Your task to perform on an android device: Go to location settings Image 0: 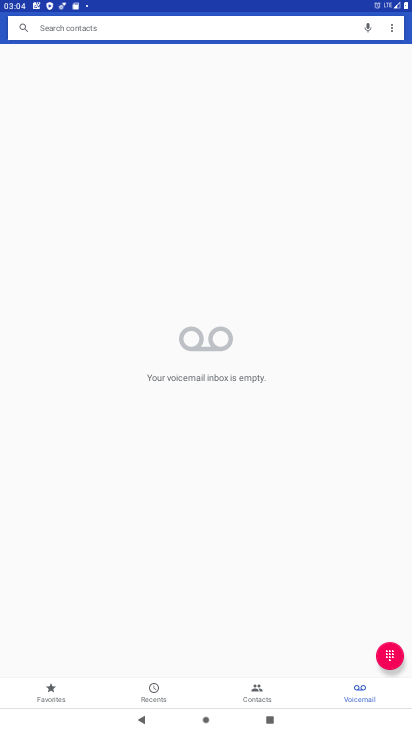
Step 0: press home button
Your task to perform on an android device: Go to location settings Image 1: 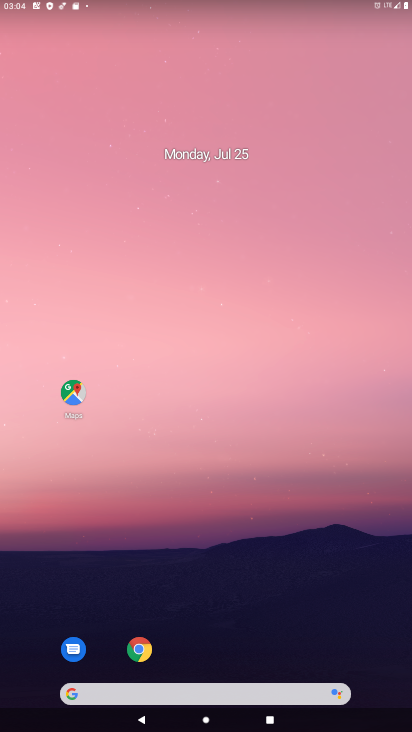
Step 1: drag from (358, 654) to (270, 178)
Your task to perform on an android device: Go to location settings Image 2: 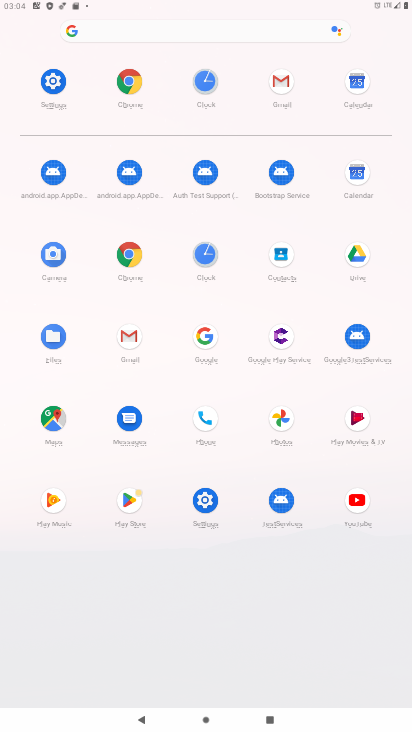
Step 2: click (205, 502)
Your task to perform on an android device: Go to location settings Image 3: 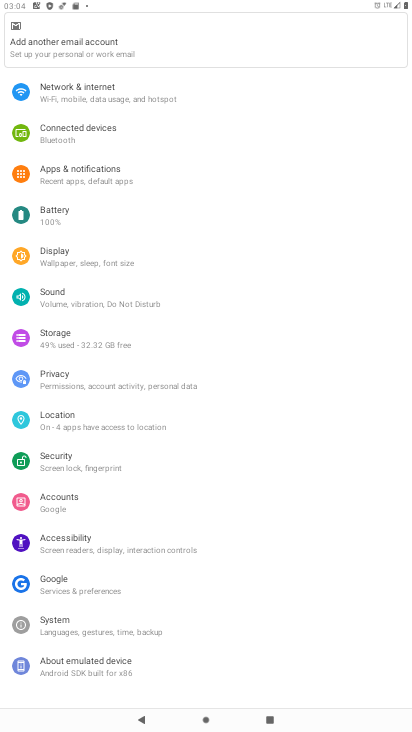
Step 3: click (56, 415)
Your task to perform on an android device: Go to location settings Image 4: 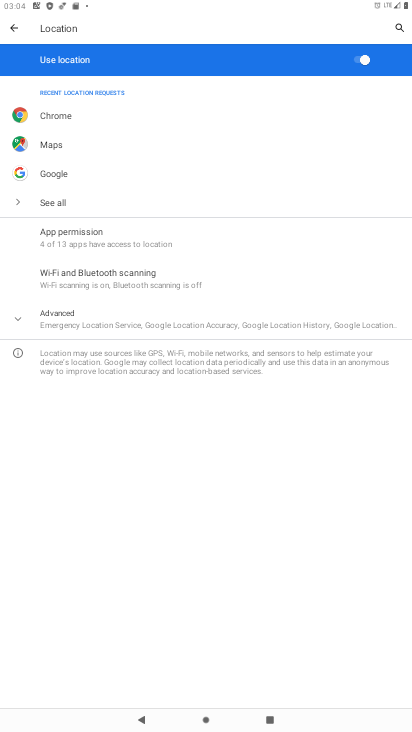
Step 4: click (15, 321)
Your task to perform on an android device: Go to location settings Image 5: 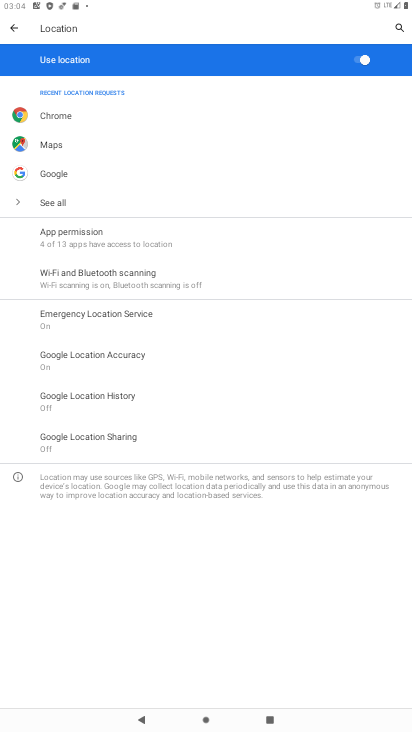
Step 5: task complete